Your task to perform on an android device: Open the web browser Image 0: 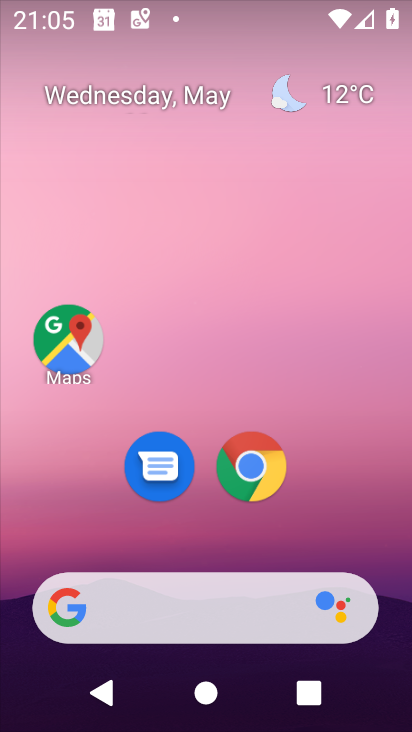
Step 0: drag from (202, 539) to (217, 95)
Your task to perform on an android device: Open the web browser Image 1: 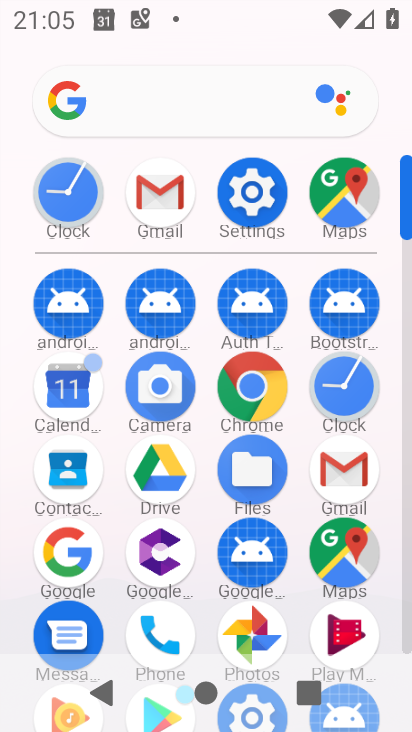
Step 1: click (264, 385)
Your task to perform on an android device: Open the web browser Image 2: 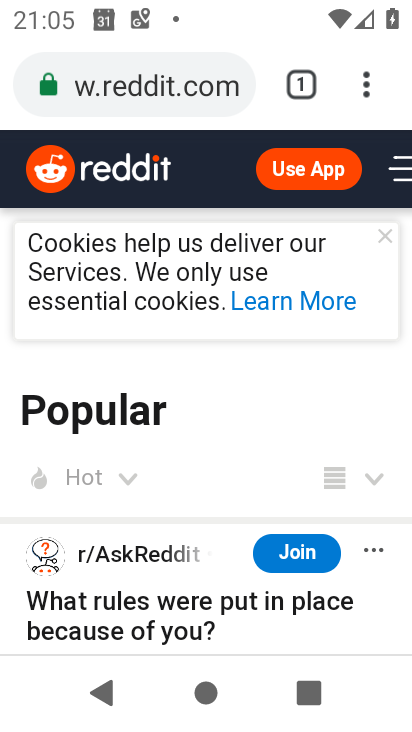
Step 2: drag from (232, 455) to (231, 176)
Your task to perform on an android device: Open the web browser Image 3: 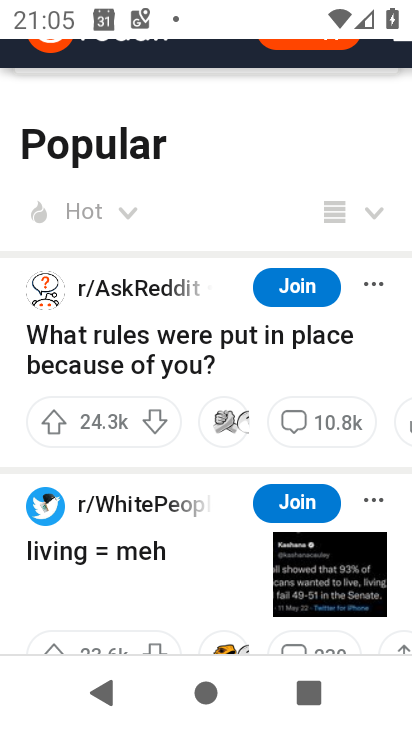
Step 3: drag from (281, 118) to (224, 595)
Your task to perform on an android device: Open the web browser Image 4: 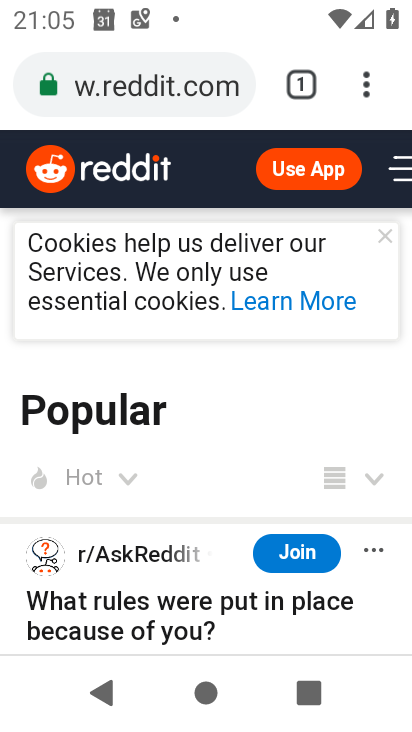
Step 4: click (298, 85)
Your task to perform on an android device: Open the web browser Image 5: 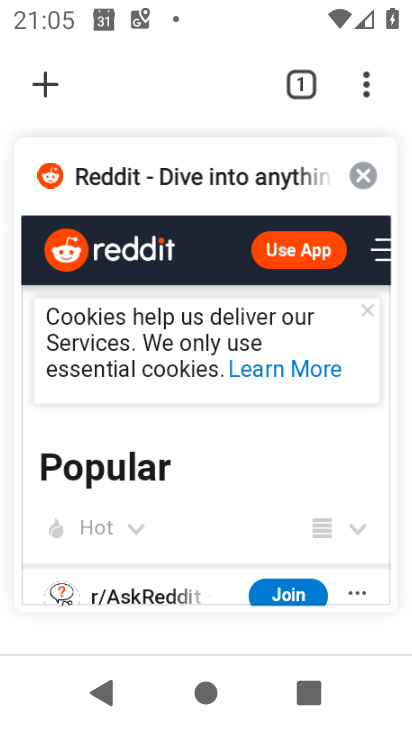
Step 5: click (364, 171)
Your task to perform on an android device: Open the web browser Image 6: 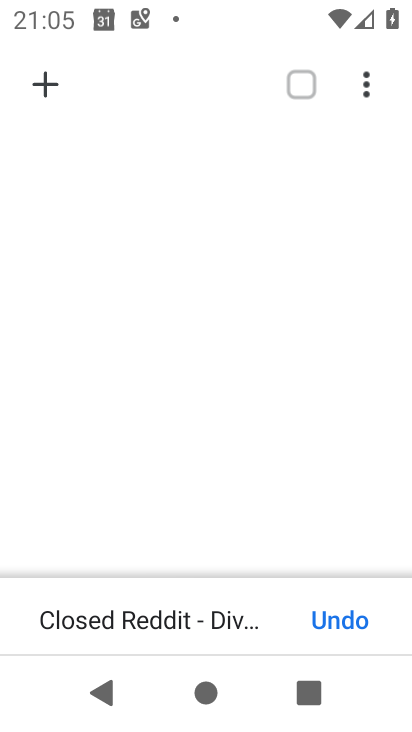
Step 6: click (66, 83)
Your task to perform on an android device: Open the web browser Image 7: 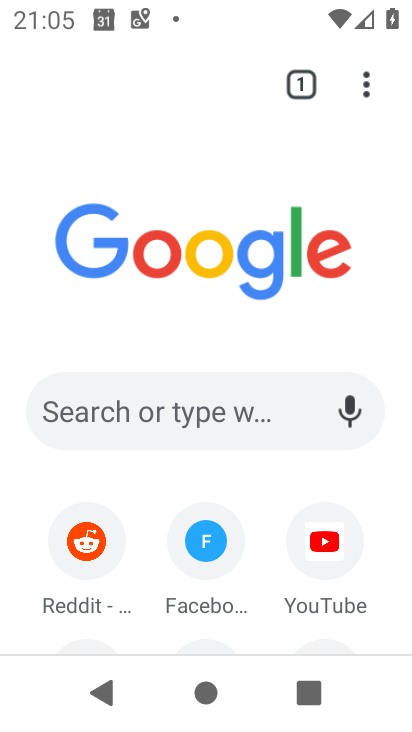
Step 7: task complete